Your task to perform on an android device: Search for Italian restaurants on Maps Image 0: 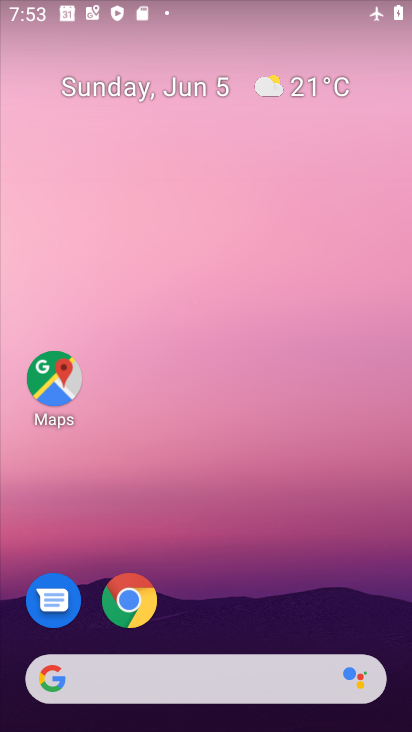
Step 0: click (49, 378)
Your task to perform on an android device: Search for Italian restaurants on Maps Image 1: 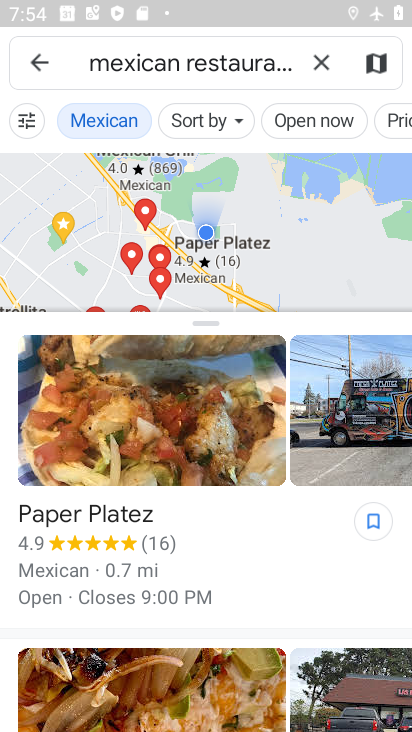
Step 1: click (317, 53)
Your task to perform on an android device: Search for Italian restaurants on Maps Image 2: 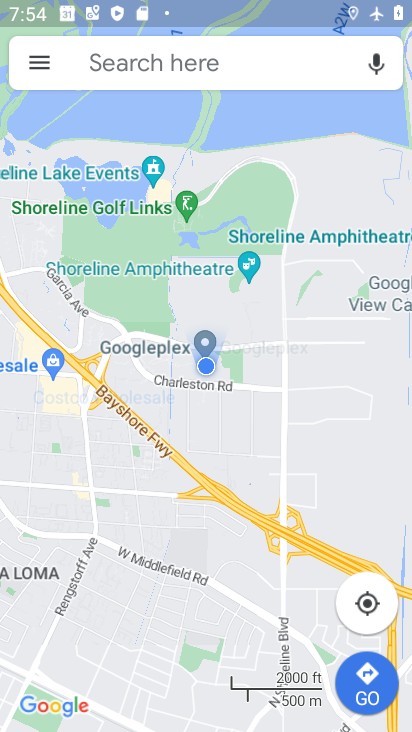
Step 2: click (223, 54)
Your task to perform on an android device: Search for Italian restaurants on Maps Image 3: 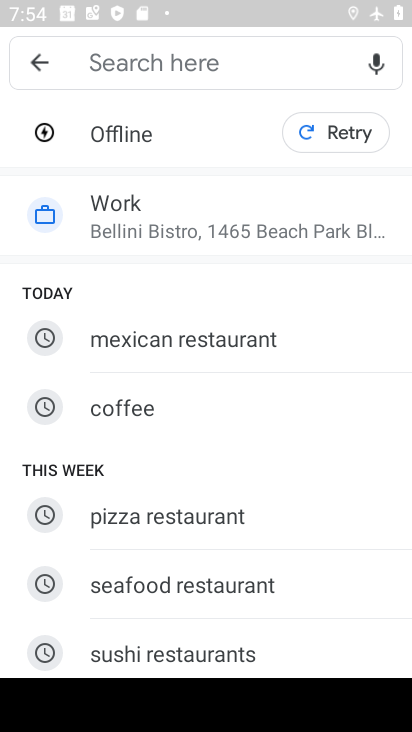
Step 3: drag from (235, 497) to (213, 201)
Your task to perform on an android device: Search for Italian restaurants on Maps Image 4: 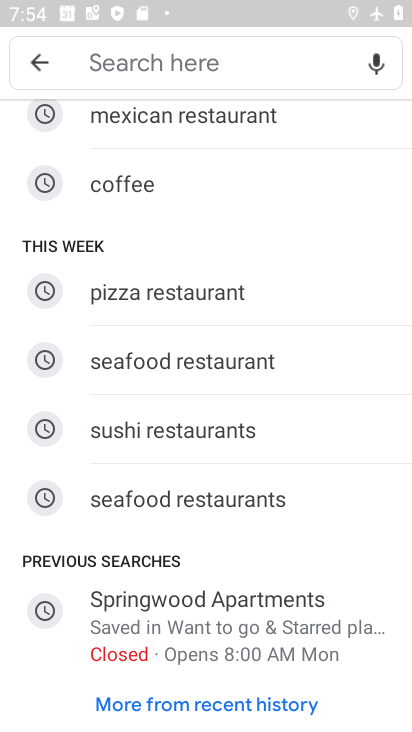
Step 4: click (254, 59)
Your task to perform on an android device: Search for Italian restaurants on Maps Image 5: 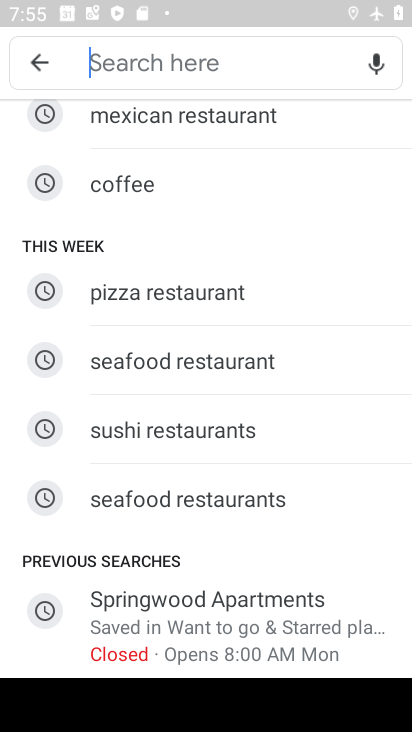
Step 5: type "italian restaurants"
Your task to perform on an android device: Search for Italian restaurants on Maps Image 6: 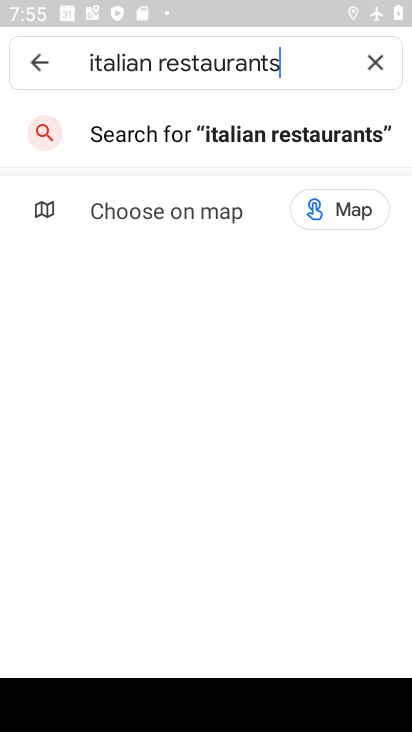
Step 6: click (339, 134)
Your task to perform on an android device: Search for Italian restaurants on Maps Image 7: 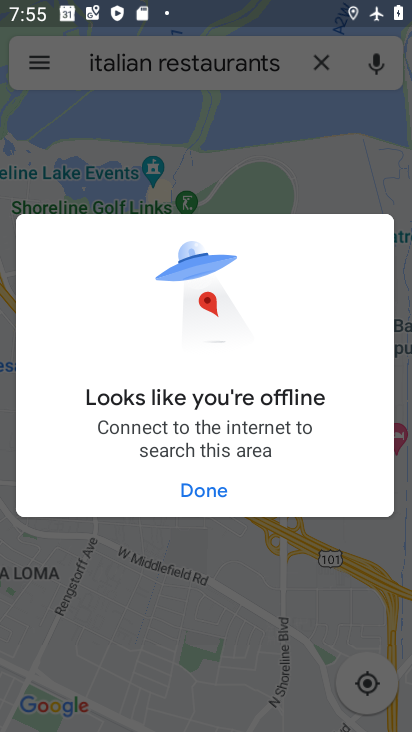
Step 7: task complete